Your task to perform on an android device: Search for vegetarian restaurants on Maps Image 0: 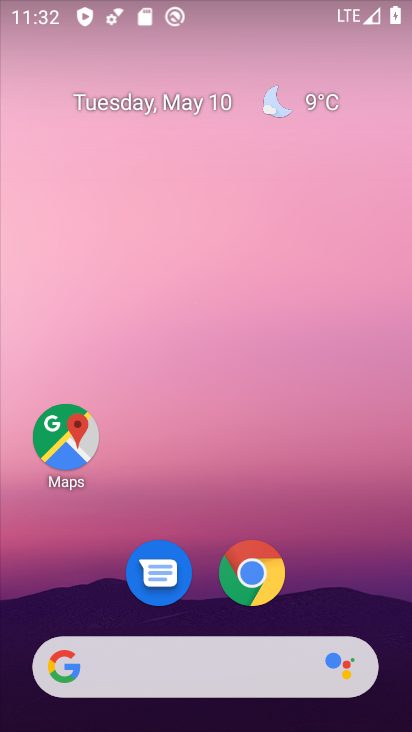
Step 0: click (67, 444)
Your task to perform on an android device: Search for vegetarian restaurants on Maps Image 1: 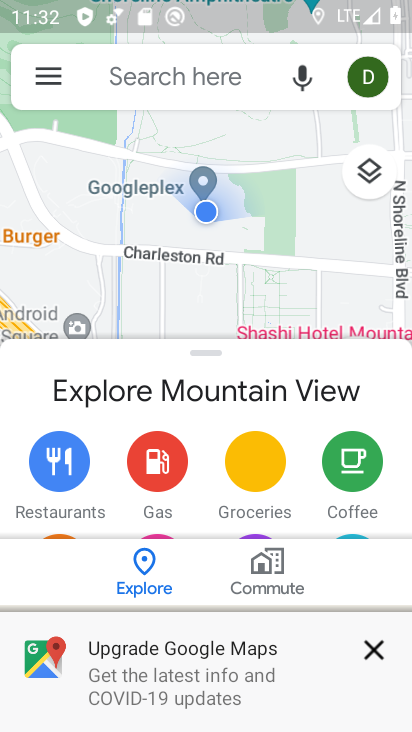
Step 1: click (207, 88)
Your task to perform on an android device: Search for vegetarian restaurants on Maps Image 2: 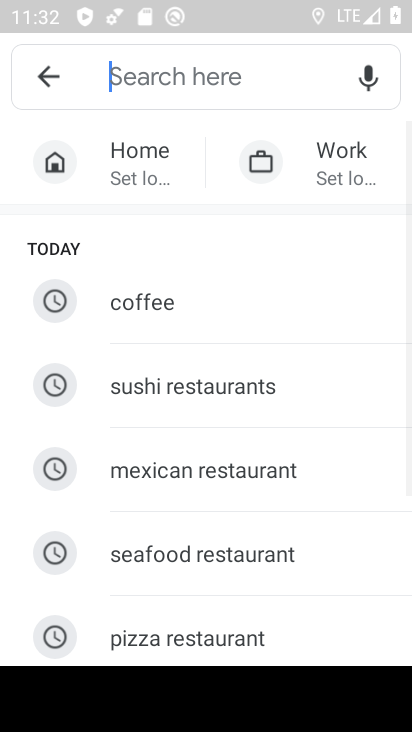
Step 2: drag from (250, 581) to (349, 195)
Your task to perform on an android device: Search for vegetarian restaurants on Maps Image 3: 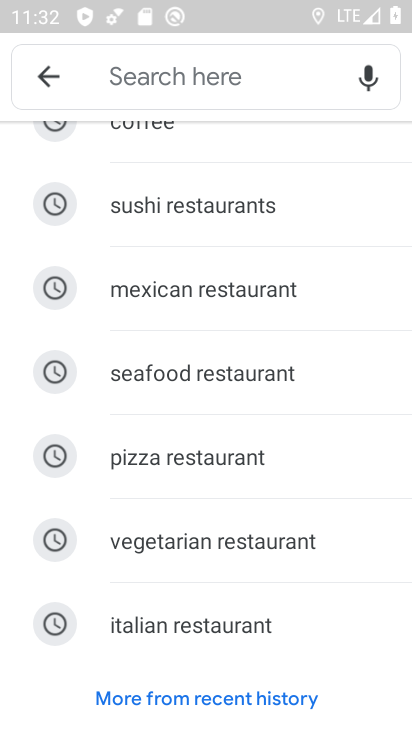
Step 3: click (229, 547)
Your task to perform on an android device: Search for vegetarian restaurants on Maps Image 4: 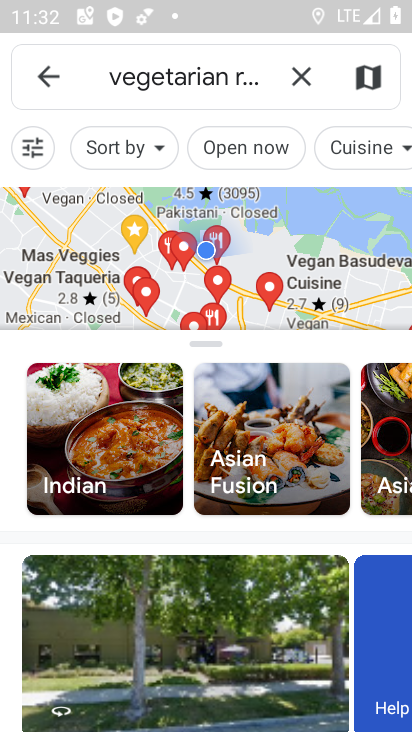
Step 4: task complete